Your task to perform on an android device: Go to sound settings Image 0: 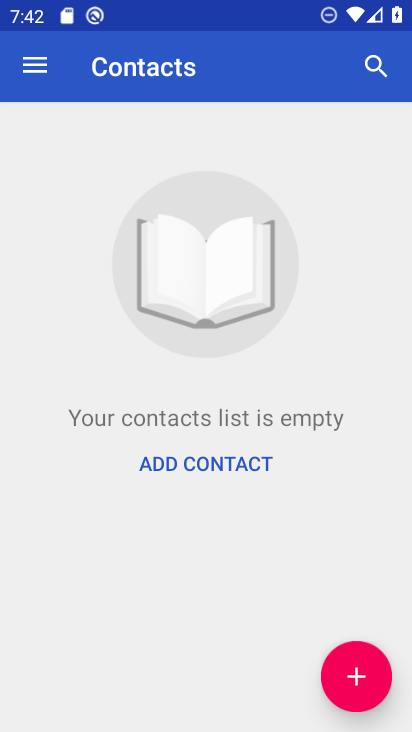
Step 0: press home button
Your task to perform on an android device: Go to sound settings Image 1: 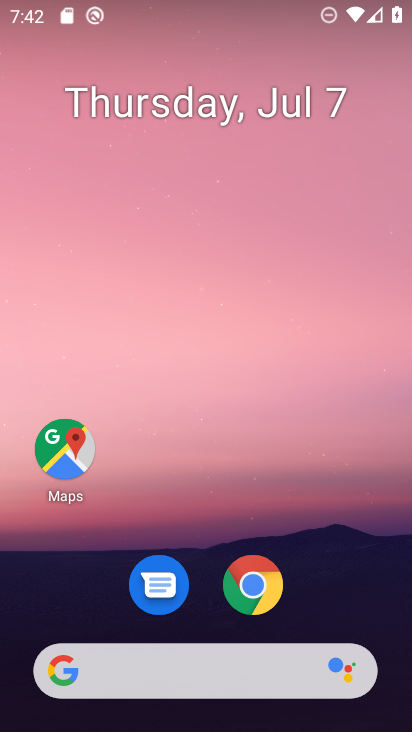
Step 1: drag from (224, 654) to (271, 186)
Your task to perform on an android device: Go to sound settings Image 2: 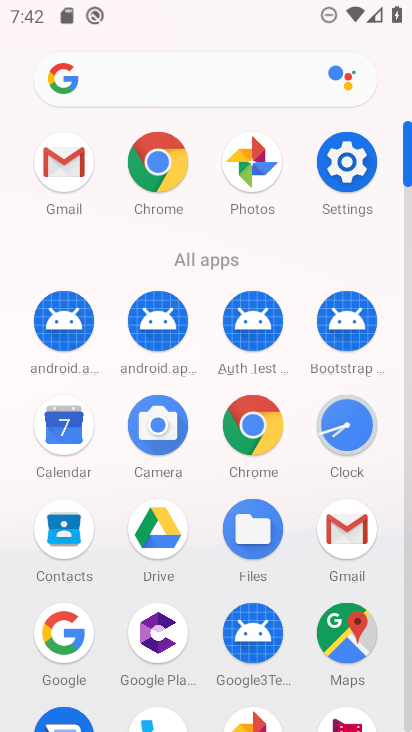
Step 2: click (337, 170)
Your task to perform on an android device: Go to sound settings Image 3: 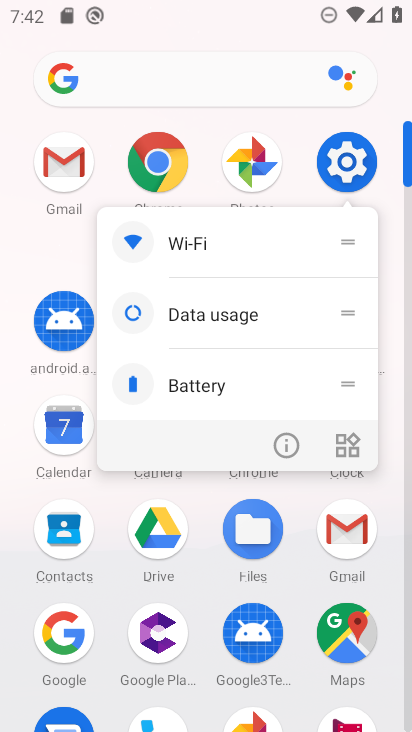
Step 3: click (344, 160)
Your task to perform on an android device: Go to sound settings Image 4: 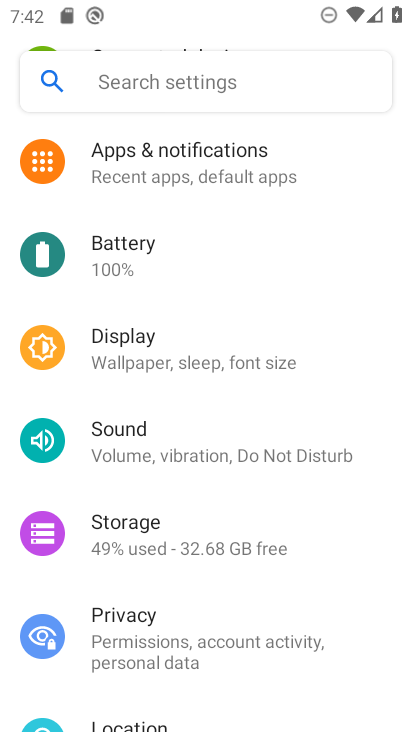
Step 4: click (146, 435)
Your task to perform on an android device: Go to sound settings Image 5: 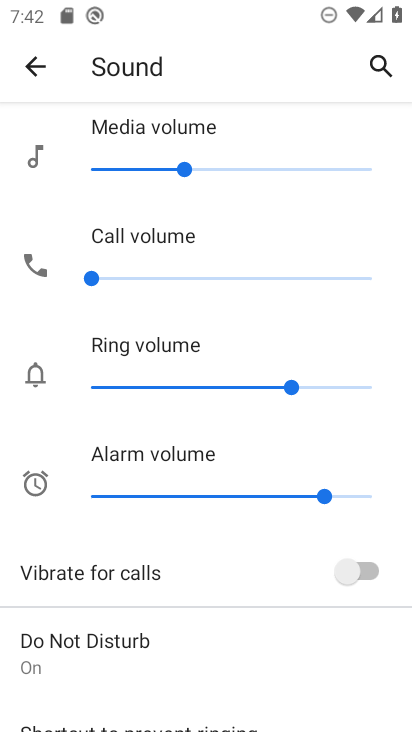
Step 5: task complete